Your task to perform on an android device: Open Google Image 0: 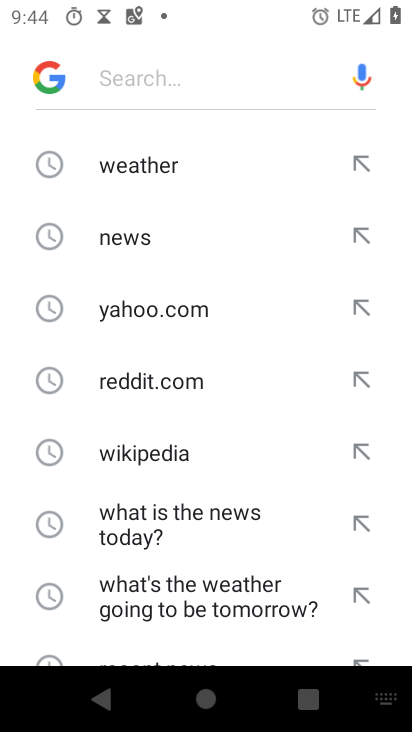
Step 0: click (40, 73)
Your task to perform on an android device: Open Google Image 1: 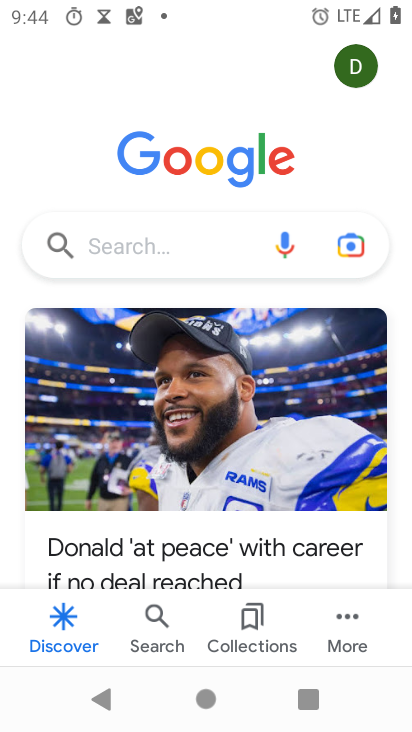
Step 1: task complete